Your task to perform on an android device: move a message to another label in the gmail app Image 0: 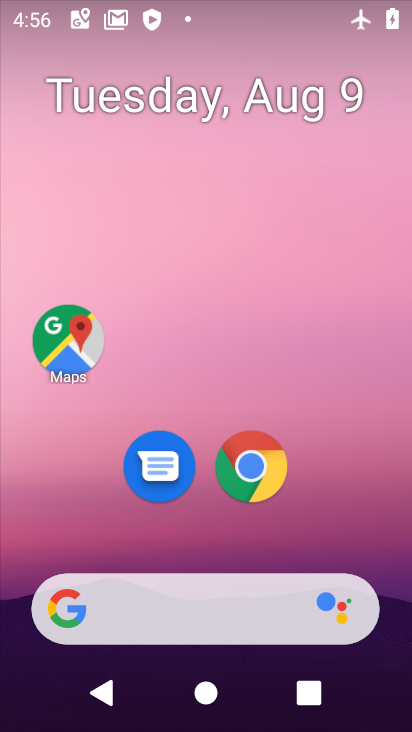
Step 0: drag from (206, 554) to (267, 45)
Your task to perform on an android device: move a message to another label in the gmail app Image 1: 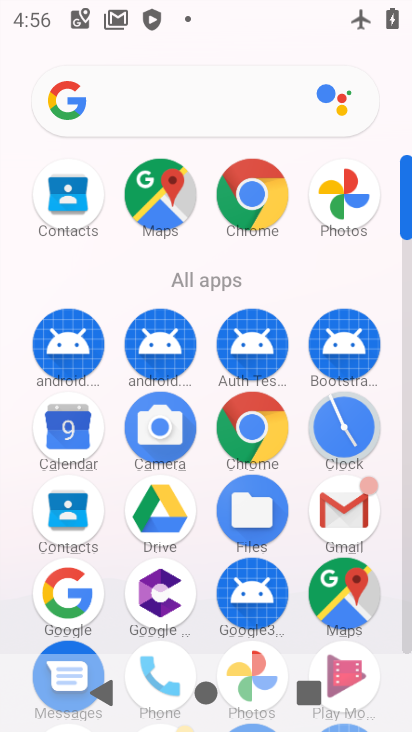
Step 1: click (342, 510)
Your task to perform on an android device: move a message to another label in the gmail app Image 2: 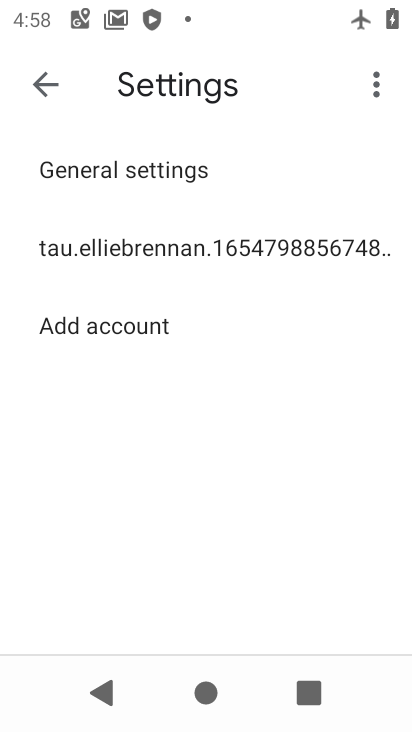
Step 2: drag from (170, 560) to (220, 387)
Your task to perform on an android device: move a message to another label in the gmail app Image 3: 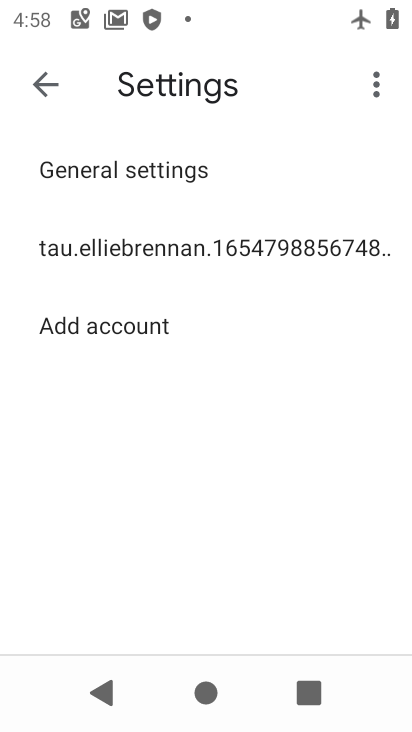
Step 3: click (36, 88)
Your task to perform on an android device: move a message to another label in the gmail app Image 4: 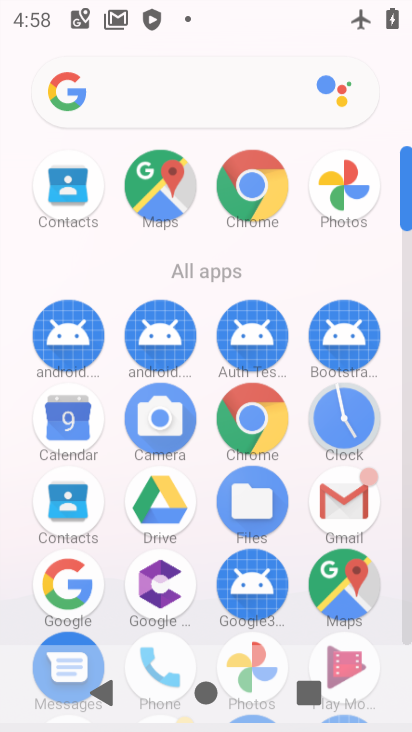
Step 4: press back button
Your task to perform on an android device: move a message to another label in the gmail app Image 5: 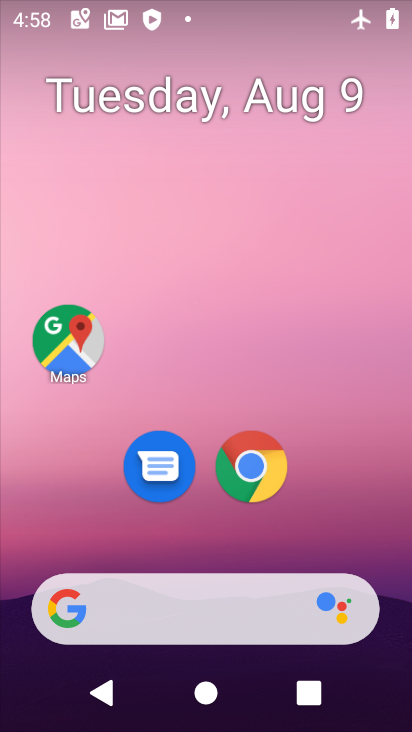
Step 5: drag from (200, 479) to (200, 85)
Your task to perform on an android device: move a message to another label in the gmail app Image 6: 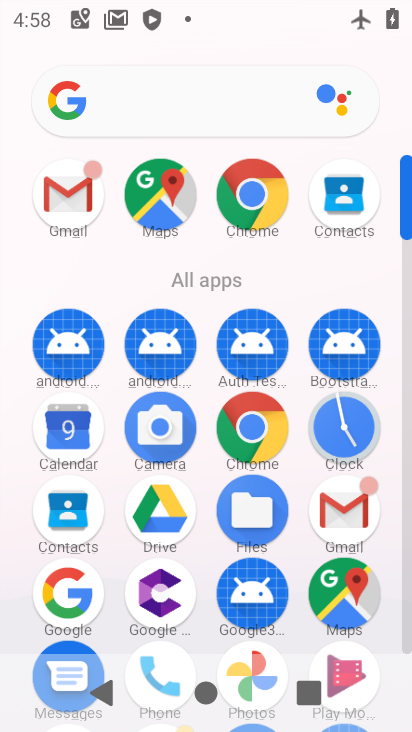
Step 6: click (343, 499)
Your task to perform on an android device: move a message to another label in the gmail app Image 7: 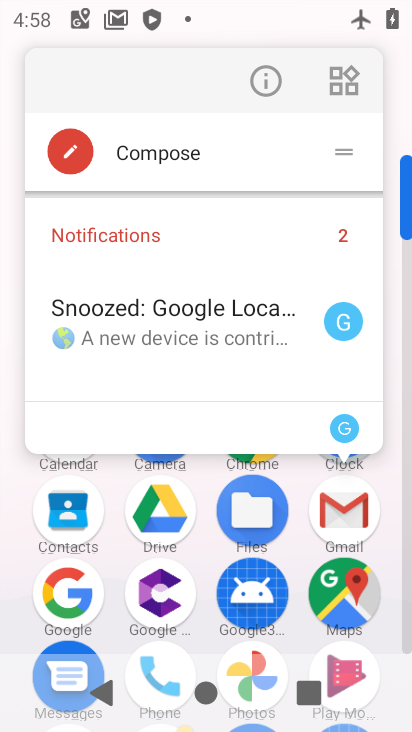
Step 7: click (266, 85)
Your task to perform on an android device: move a message to another label in the gmail app Image 8: 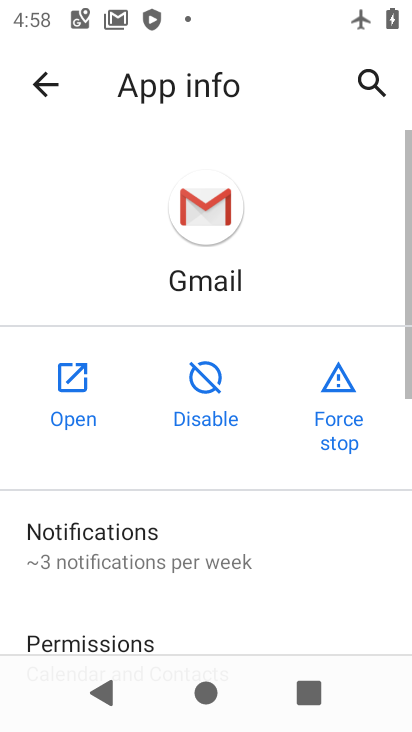
Step 8: click (78, 384)
Your task to perform on an android device: move a message to another label in the gmail app Image 9: 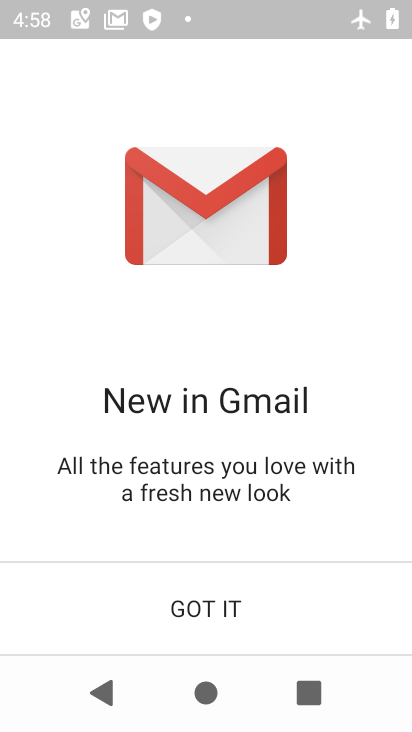
Step 9: click (207, 601)
Your task to perform on an android device: move a message to another label in the gmail app Image 10: 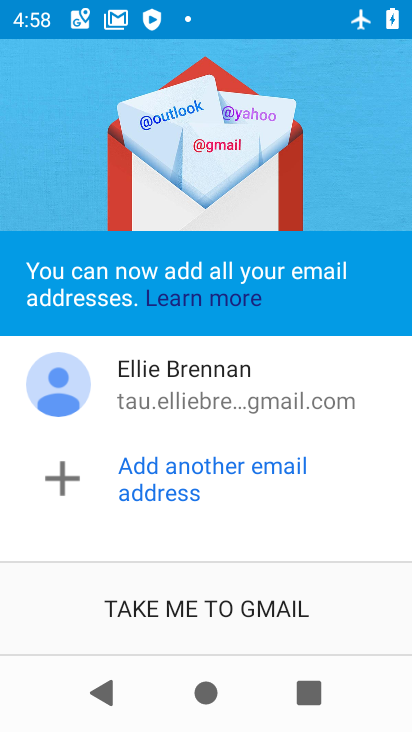
Step 10: click (193, 592)
Your task to perform on an android device: move a message to another label in the gmail app Image 11: 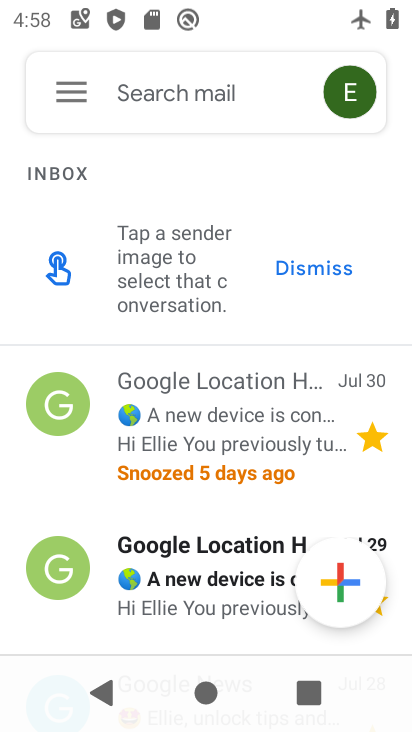
Step 11: drag from (176, 466) to (219, 90)
Your task to perform on an android device: move a message to another label in the gmail app Image 12: 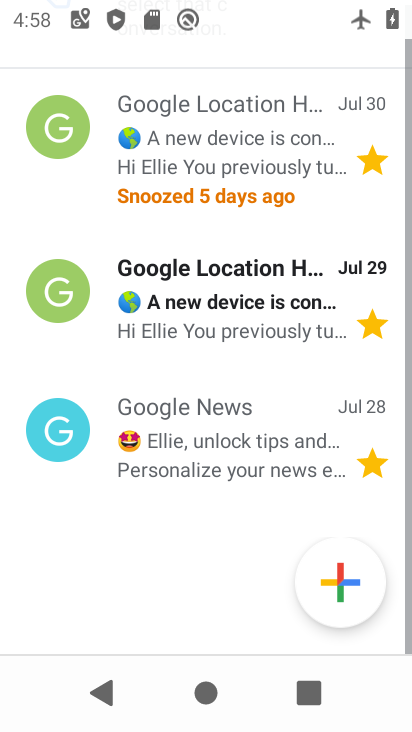
Step 12: drag from (184, 411) to (196, 149)
Your task to perform on an android device: move a message to another label in the gmail app Image 13: 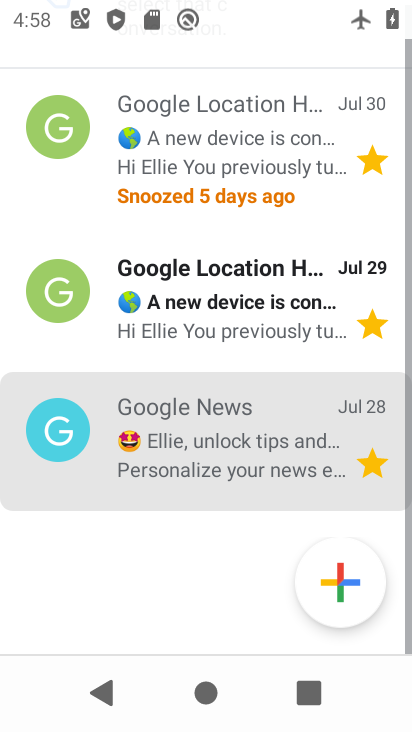
Step 13: drag from (202, 129) to (196, 585)
Your task to perform on an android device: move a message to another label in the gmail app Image 14: 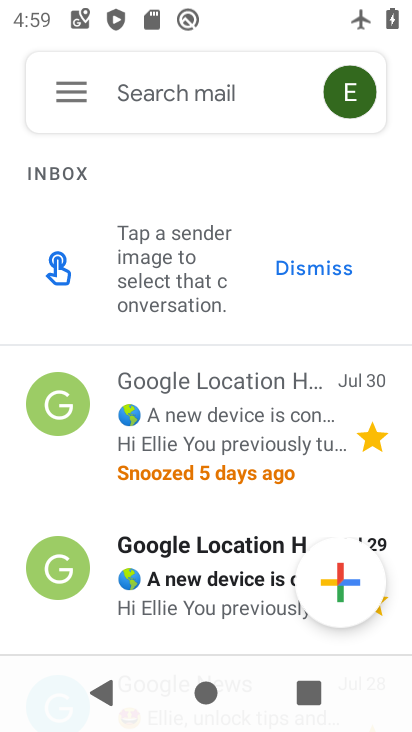
Step 14: click (74, 100)
Your task to perform on an android device: move a message to another label in the gmail app Image 15: 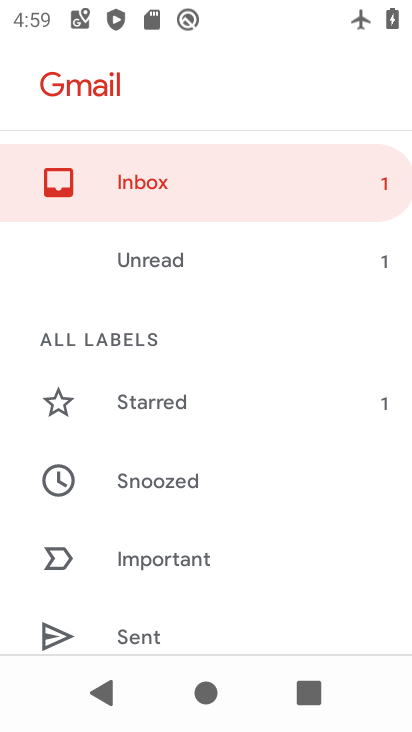
Step 15: drag from (222, 484) to (287, 106)
Your task to perform on an android device: move a message to another label in the gmail app Image 16: 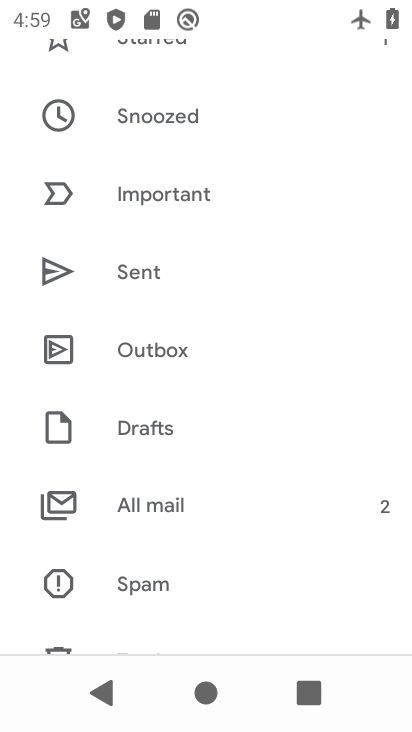
Step 16: drag from (237, 559) to (247, 331)
Your task to perform on an android device: move a message to another label in the gmail app Image 17: 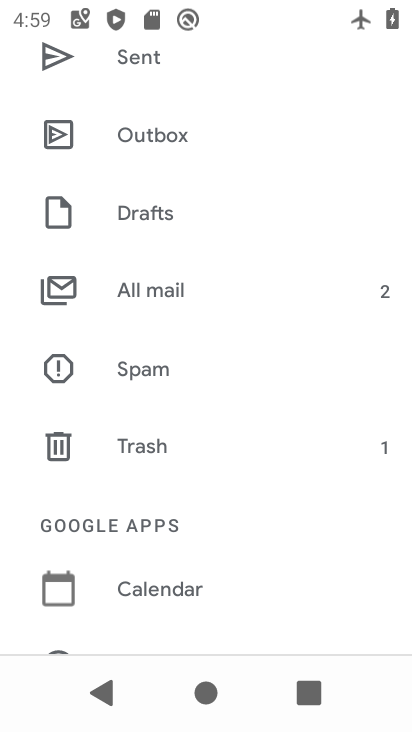
Step 17: drag from (230, 340) to (291, 731)
Your task to perform on an android device: move a message to another label in the gmail app Image 18: 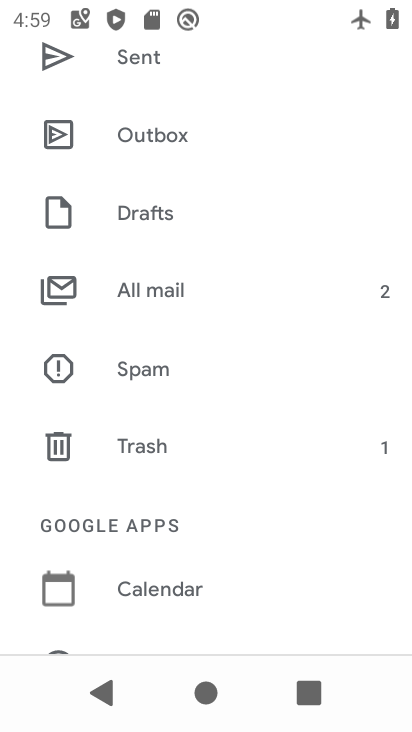
Step 18: drag from (219, 128) to (235, 704)
Your task to perform on an android device: move a message to another label in the gmail app Image 19: 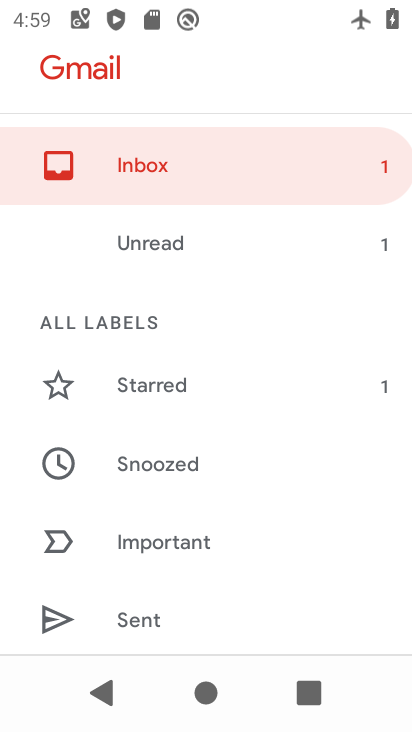
Step 19: click (178, 161)
Your task to perform on an android device: move a message to another label in the gmail app Image 20: 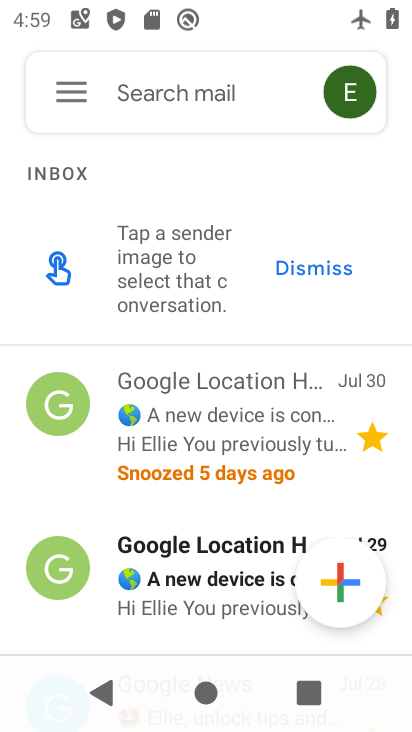
Step 20: drag from (227, 568) to (300, 102)
Your task to perform on an android device: move a message to another label in the gmail app Image 21: 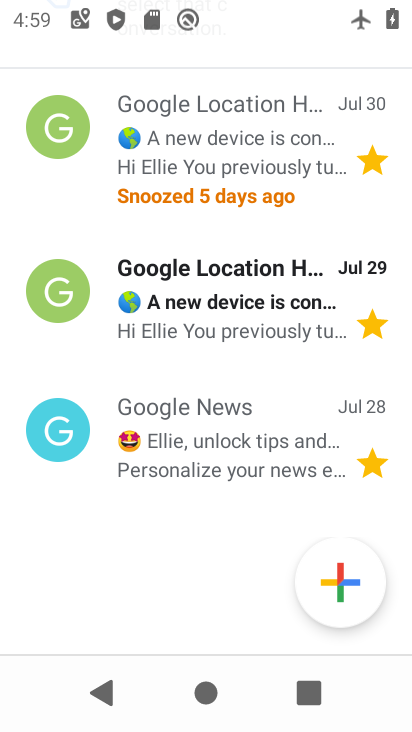
Step 21: drag from (184, 142) to (233, 642)
Your task to perform on an android device: move a message to another label in the gmail app Image 22: 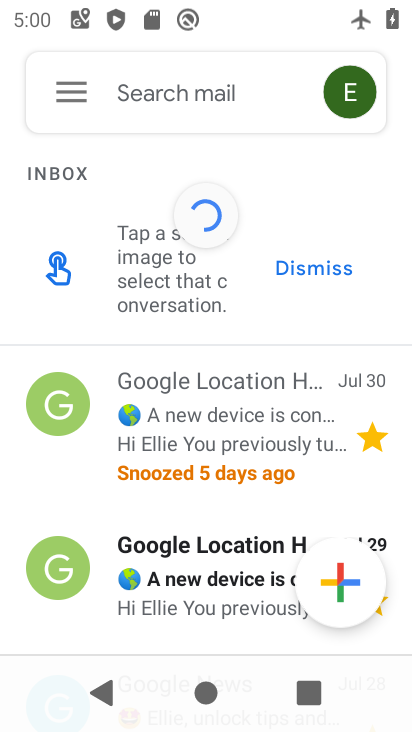
Step 22: click (67, 87)
Your task to perform on an android device: move a message to another label in the gmail app Image 23: 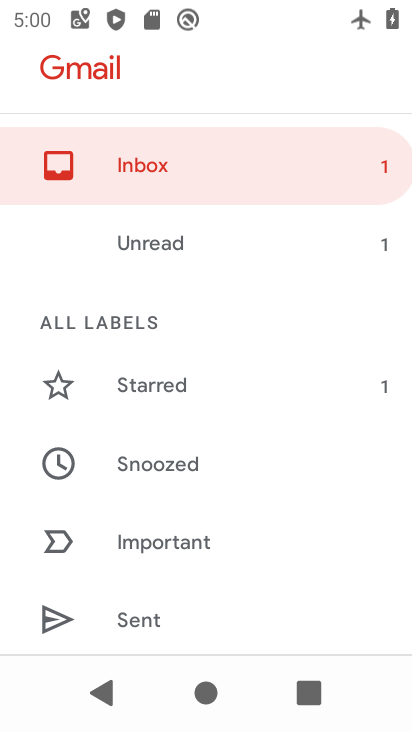
Step 23: drag from (171, 334) to (206, 201)
Your task to perform on an android device: move a message to another label in the gmail app Image 24: 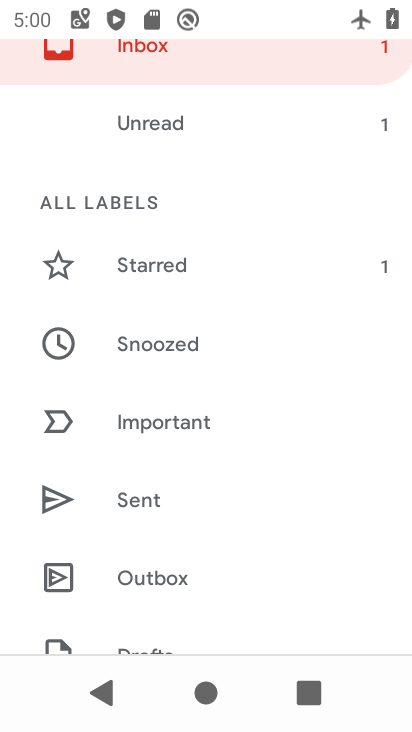
Step 24: drag from (163, 303) to (213, 651)
Your task to perform on an android device: move a message to another label in the gmail app Image 25: 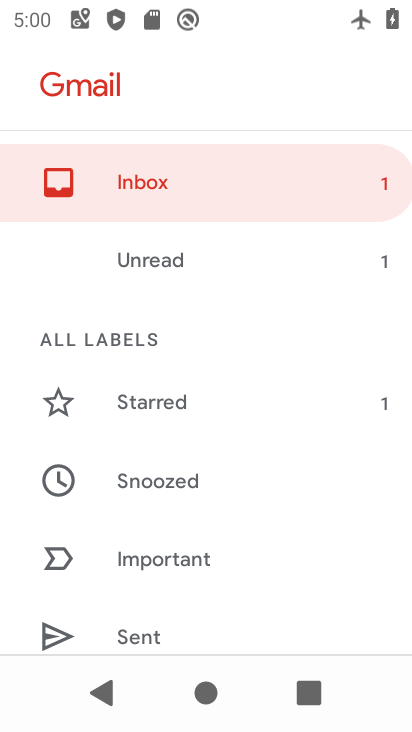
Step 25: drag from (221, 550) to (247, 235)
Your task to perform on an android device: move a message to another label in the gmail app Image 26: 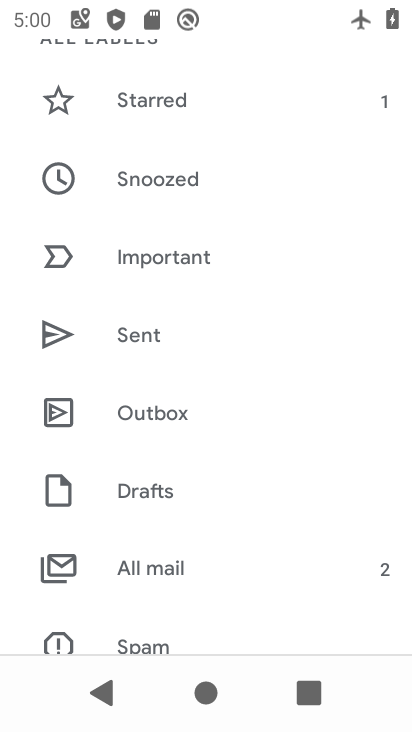
Step 26: drag from (247, 188) to (215, 612)
Your task to perform on an android device: move a message to another label in the gmail app Image 27: 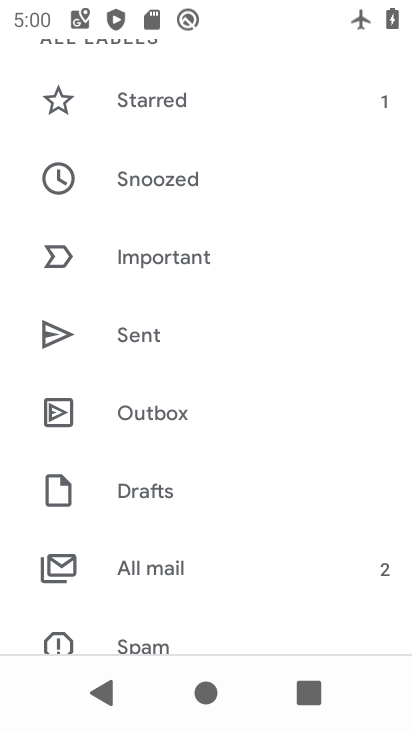
Step 27: drag from (231, 308) to (313, 723)
Your task to perform on an android device: move a message to another label in the gmail app Image 28: 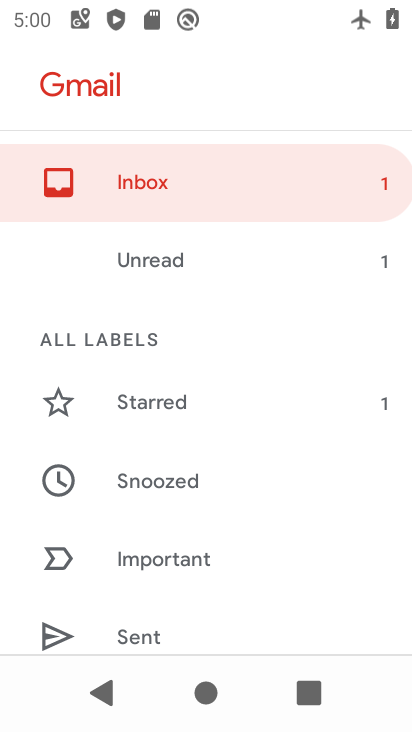
Step 28: click (140, 174)
Your task to perform on an android device: move a message to another label in the gmail app Image 29: 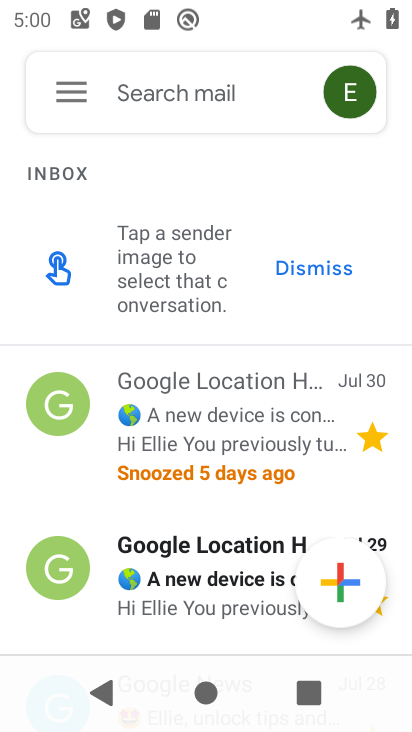
Step 29: click (229, 421)
Your task to perform on an android device: move a message to another label in the gmail app Image 30: 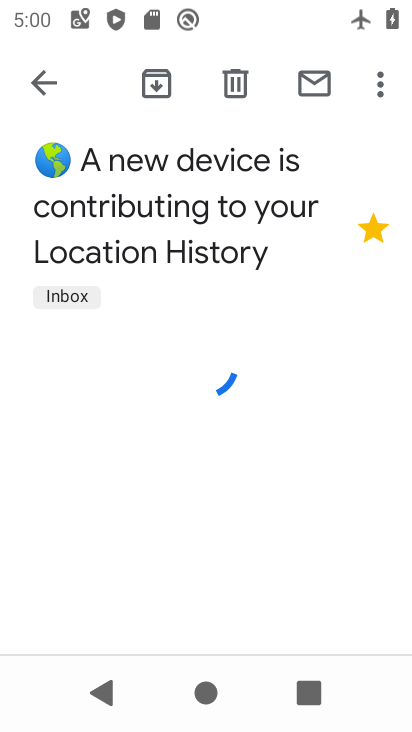
Step 30: click (374, 229)
Your task to perform on an android device: move a message to another label in the gmail app Image 31: 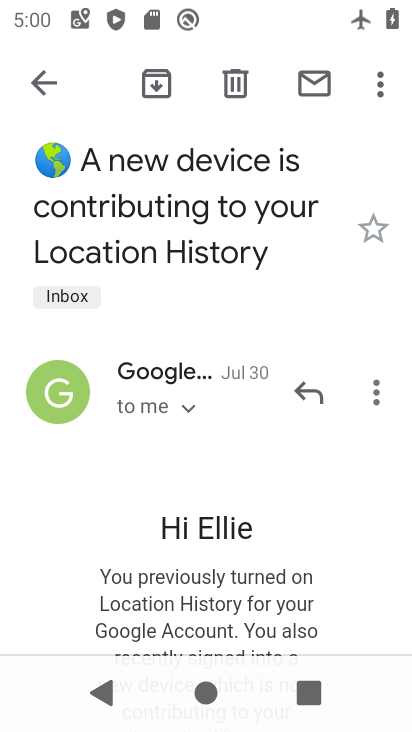
Step 31: task complete